Your task to perform on an android device: Open notification settings Image 0: 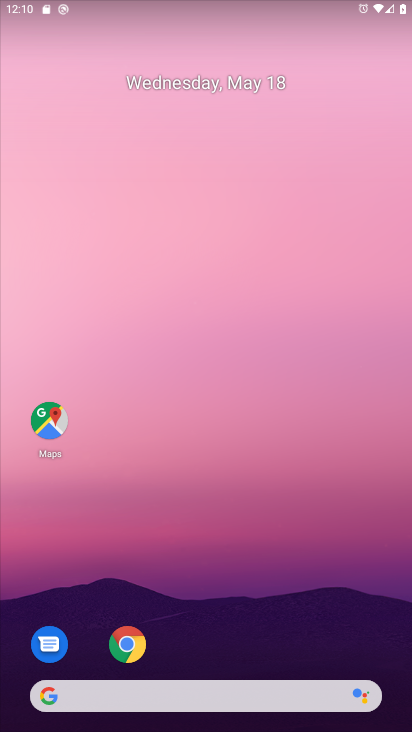
Step 0: drag from (219, 647) to (257, 218)
Your task to perform on an android device: Open notification settings Image 1: 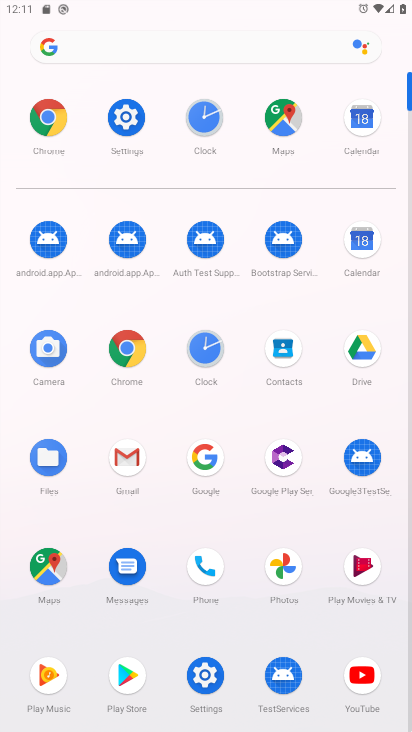
Step 1: click (130, 114)
Your task to perform on an android device: Open notification settings Image 2: 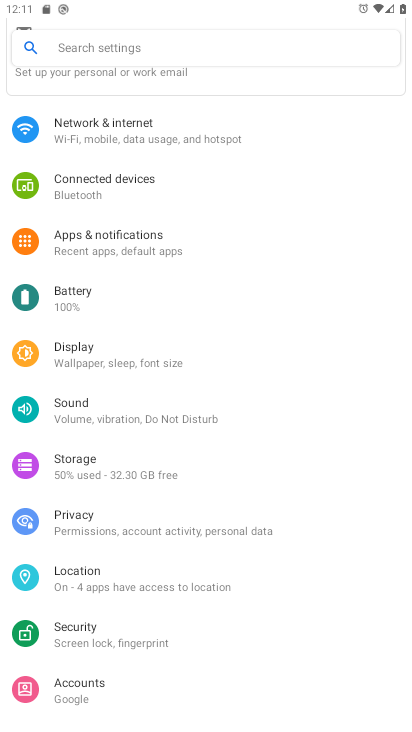
Step 2: click (131, 250)
Your task to perform on an android device: Open notification settings Image 3: 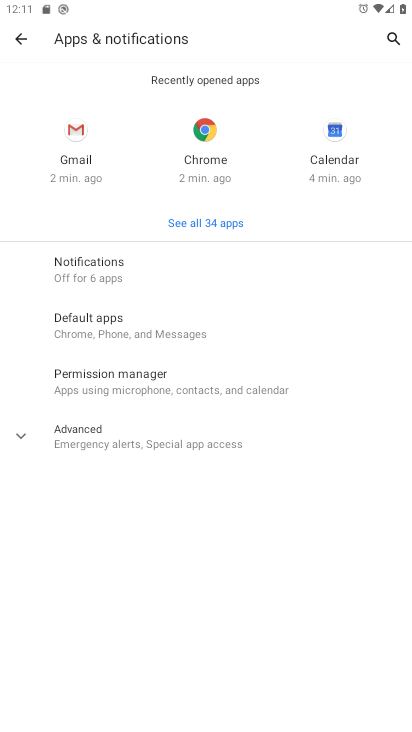
Step 3: click (129, 270)
Your task to perform on an android device: Open notification settings Image 4: 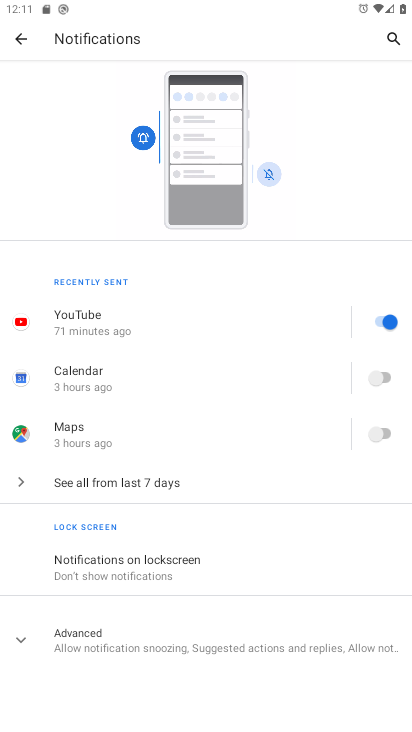
Step 4: click (116, 636)
Your task to perform on an android device: Open notification settings Image 5: 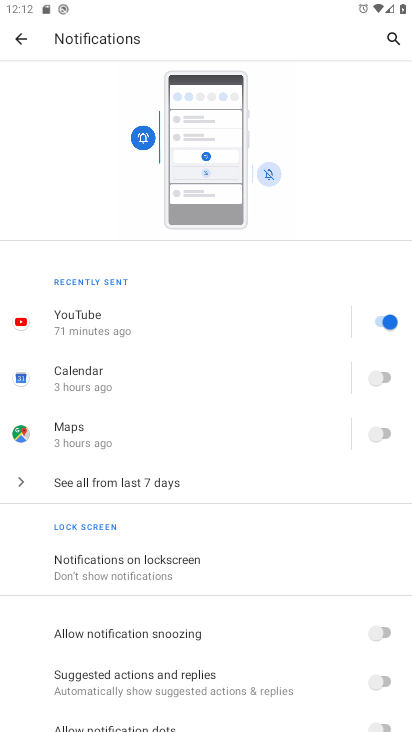
Step 5: task complete